Your task to perform on an android device: move a message to another label in the gmail app Image 0: 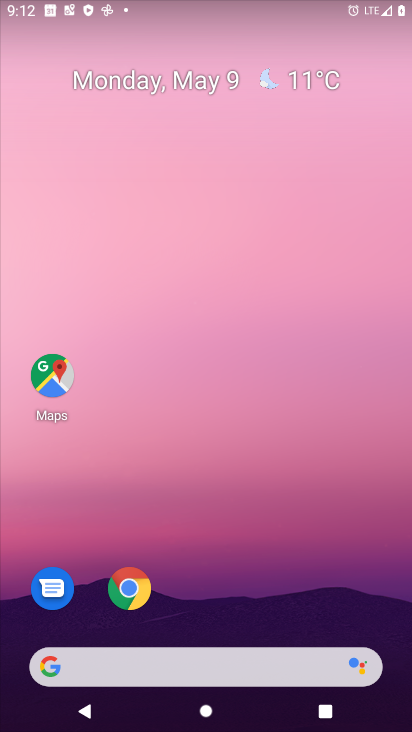
Step 0: drag from (358, 621) to (240, 0)
Your task to perform on an android device: move a message to another label in the gmail app Image 1: 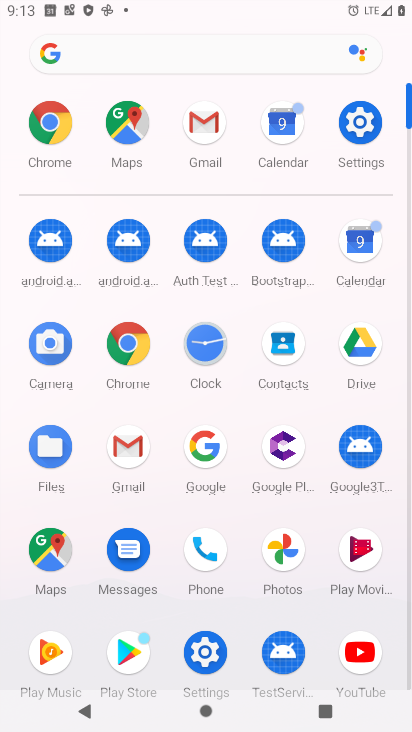
Step 1: click (124, 465)
Your task to perform on an android device: move a message to another label in the gmail app Image 2: 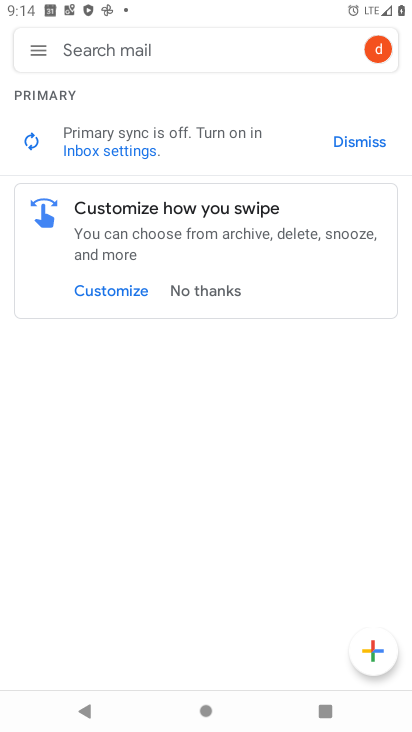
Step 2: task complete